Your task to perform on an android device: Open Yahoo.com Image 0: 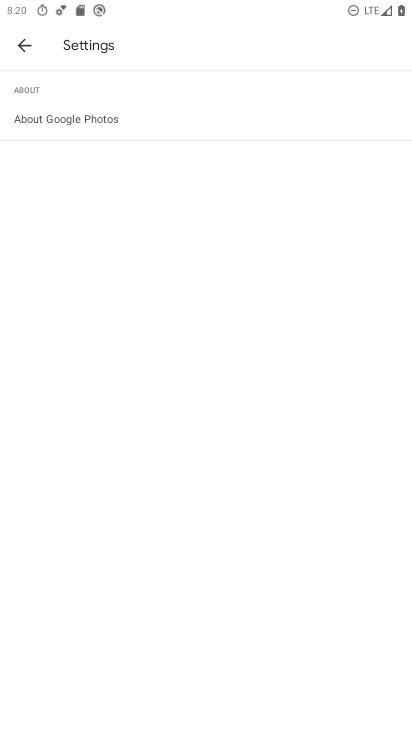
Step 0: press home button
Your task to perform on an android device: Open Yahoo.com Image 1: 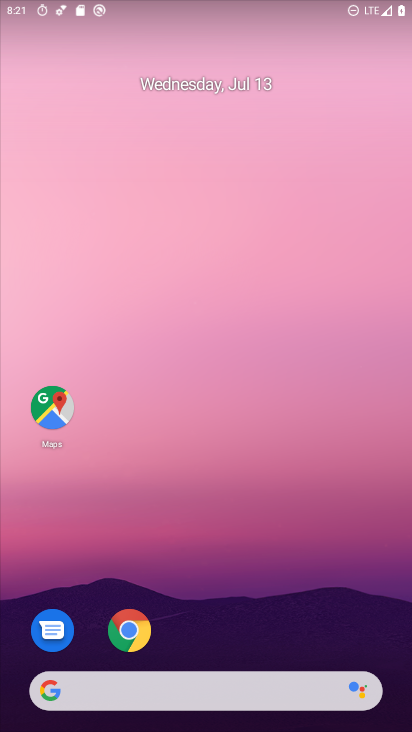
Step 1: drag from (371, 645) to (165, 79)
Your task to perform on an android device: Open Yahoo.com Image 2: 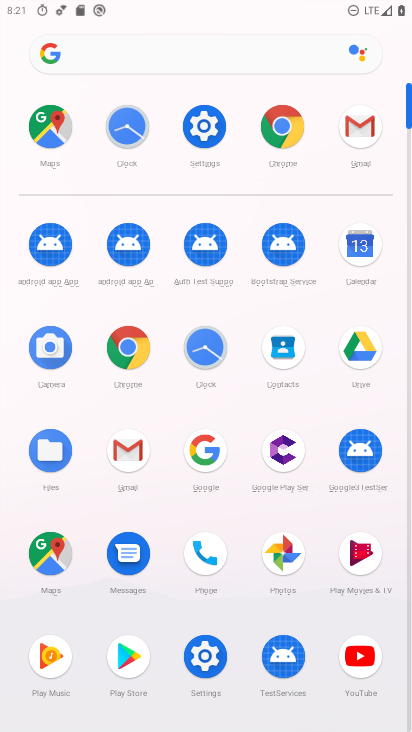
Step 2: click (201, 436)
Your task to perform on an android device: Open Yahoo.com Image 3: 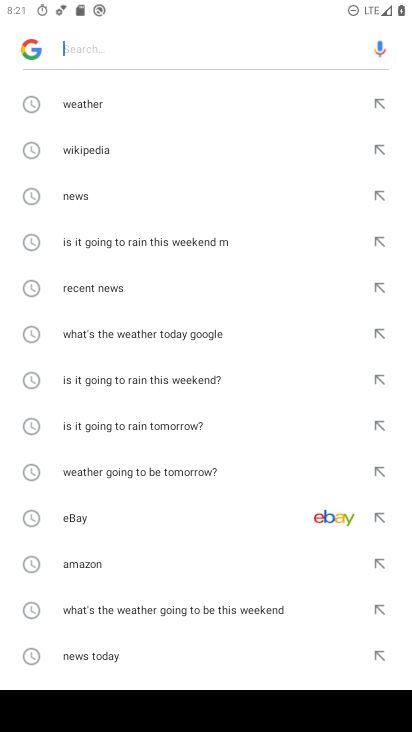
Step 3: type "Yahoo.com"
Your task to perform on an android device: Open Yahoo.com Image 4: 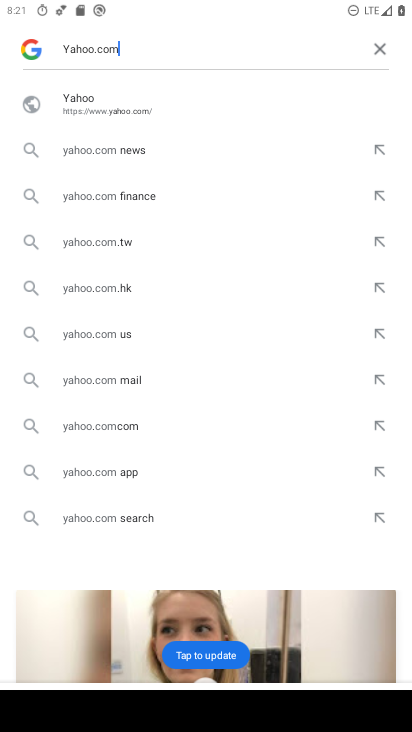
Step 4: click (91, 118)
Your task to perform on an android device: Open Yahoo.com Image 5: 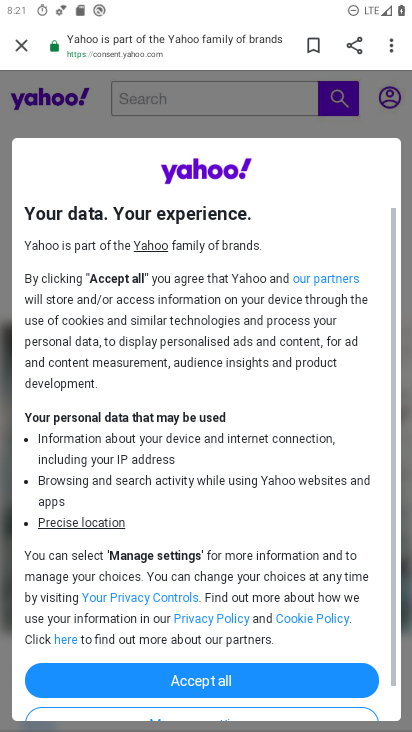
Step 5: task complete